Your task to perform on an android device: Show me productivity apps on the Play Store Image 0: 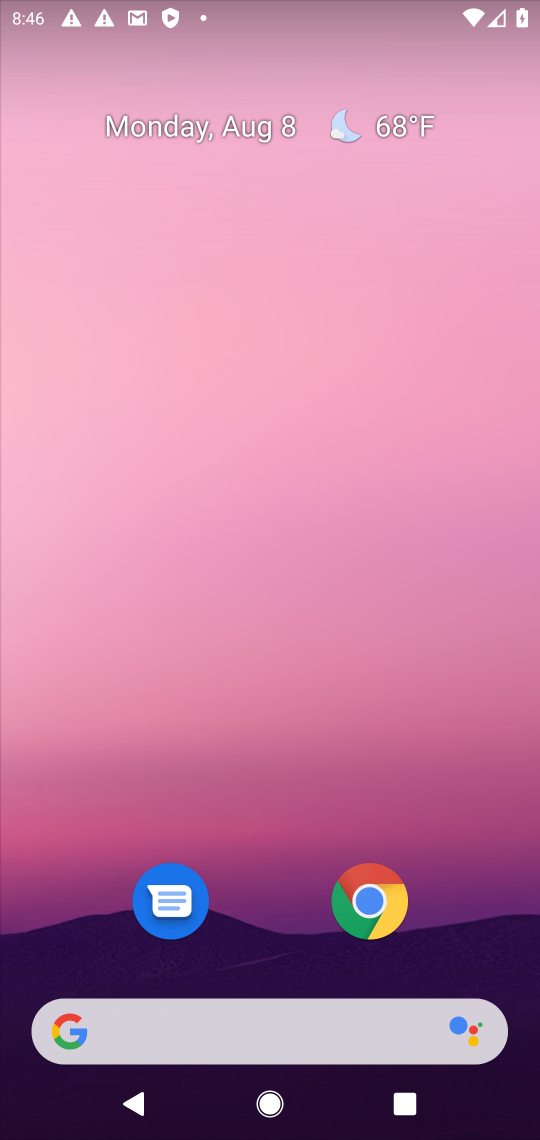
Step 0: press back button
Your task to perform on an android device: Show me productivity apps on the Play Store Image 1: 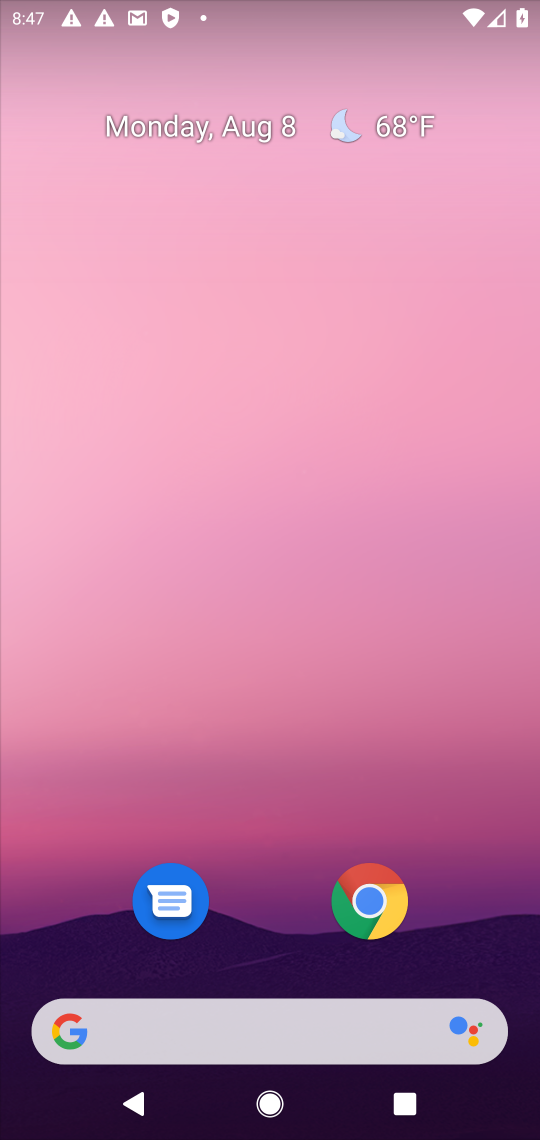
Step 1: drag from (275, 38) to (251, 125)
Your task to perform on an android device: Show me productivity apps on the Play Store Image 2: 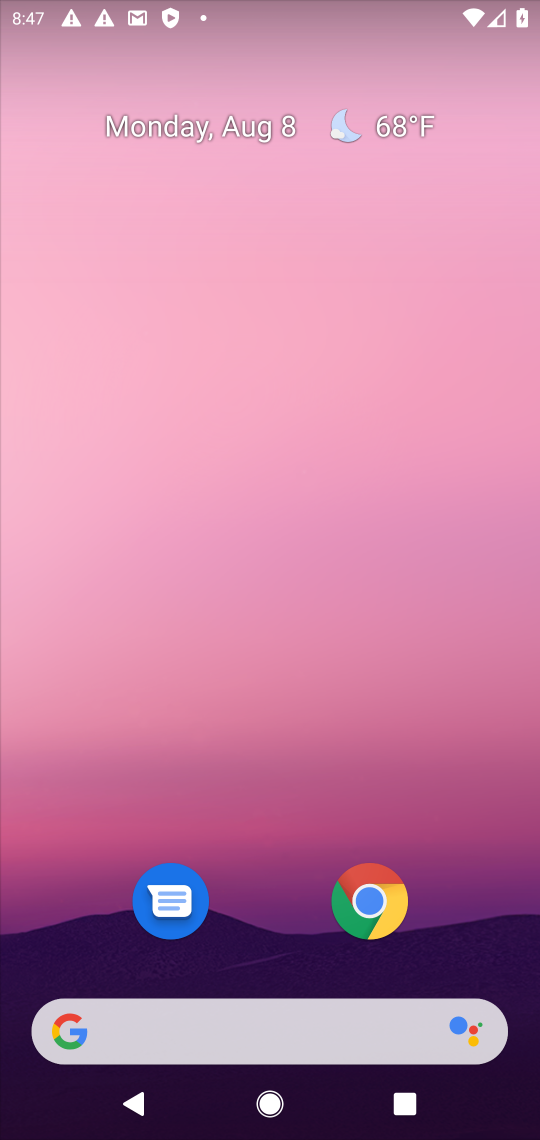
Step 2: click (259, 270)
Your task to perform on an android device: Show me productivity apps on the Play Store Image 3: 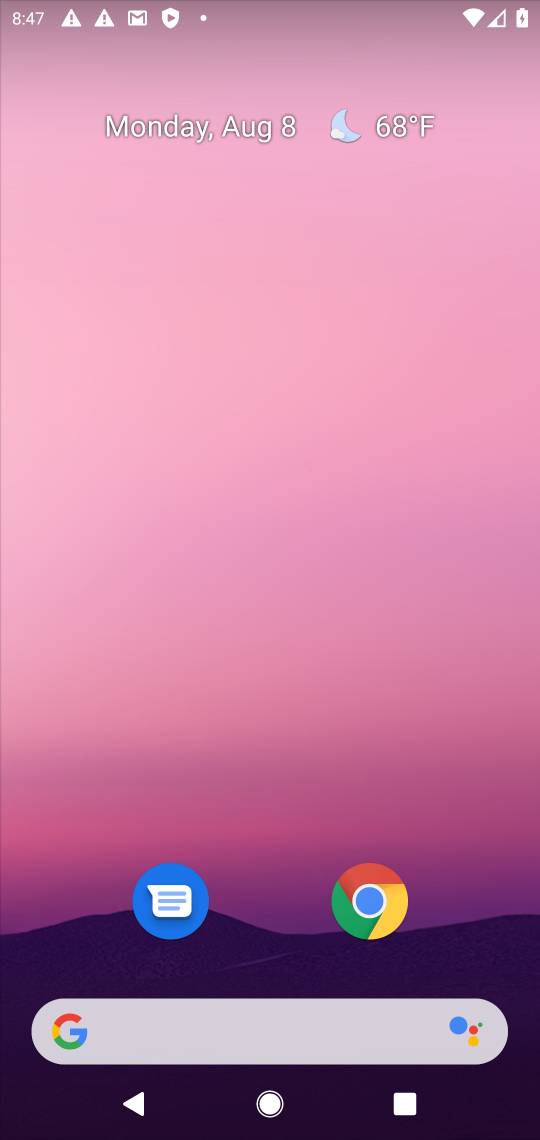
Step 3: click (278, 291)
Your task to perform on an android device: Show me productivity apps on the Play Store Image 4: 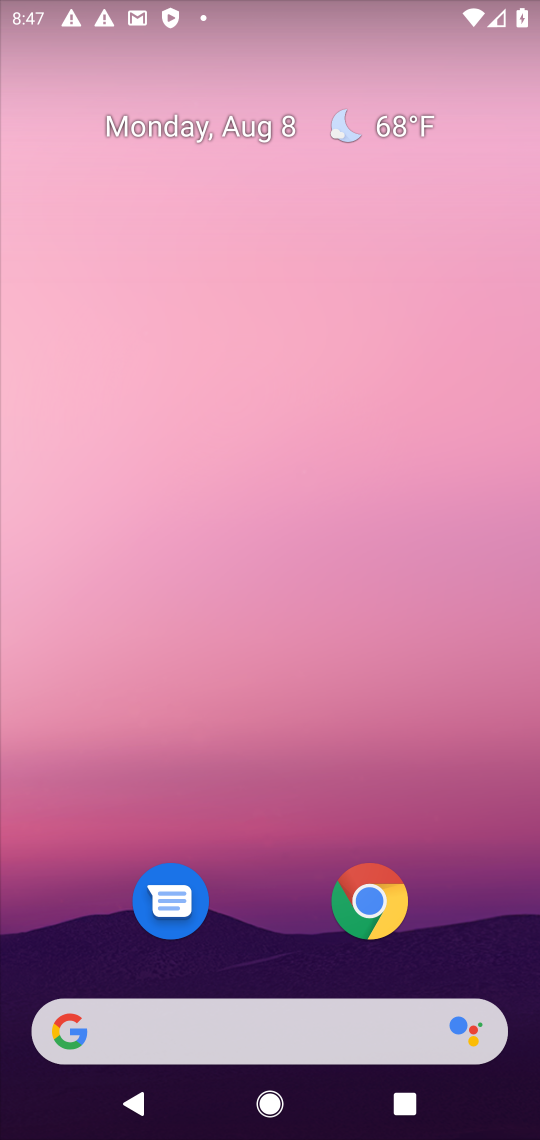
Step 4: drag from (237, 849) to (294, 300)
Your task to perform on an android device: Show me productivity apps on the Play Store Image 5: 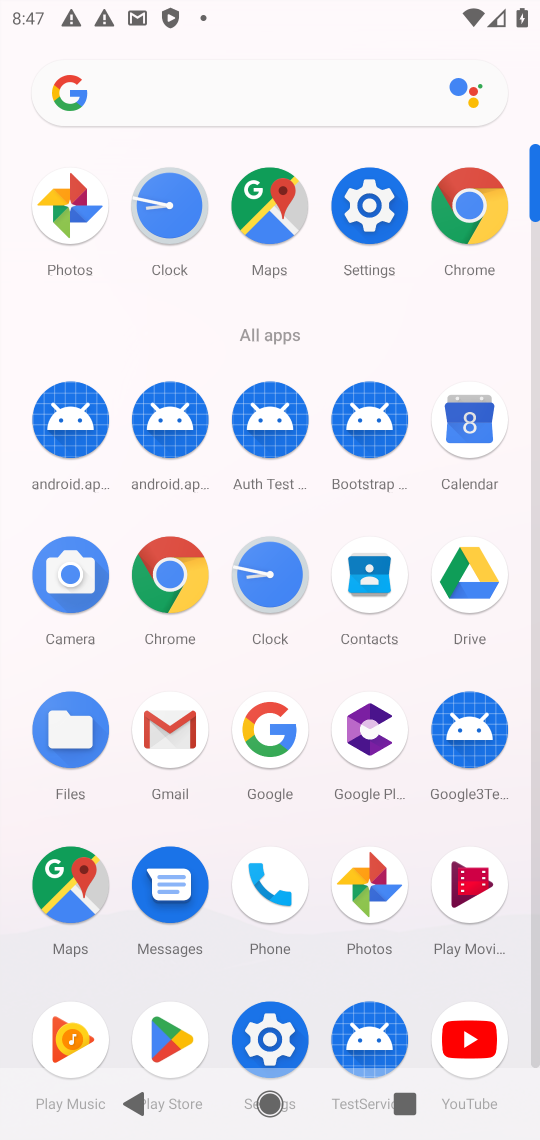
Step 5: click (163, 1037)
Your task to perform on an android device: Show me productivity apps on the Play Store Image 6: 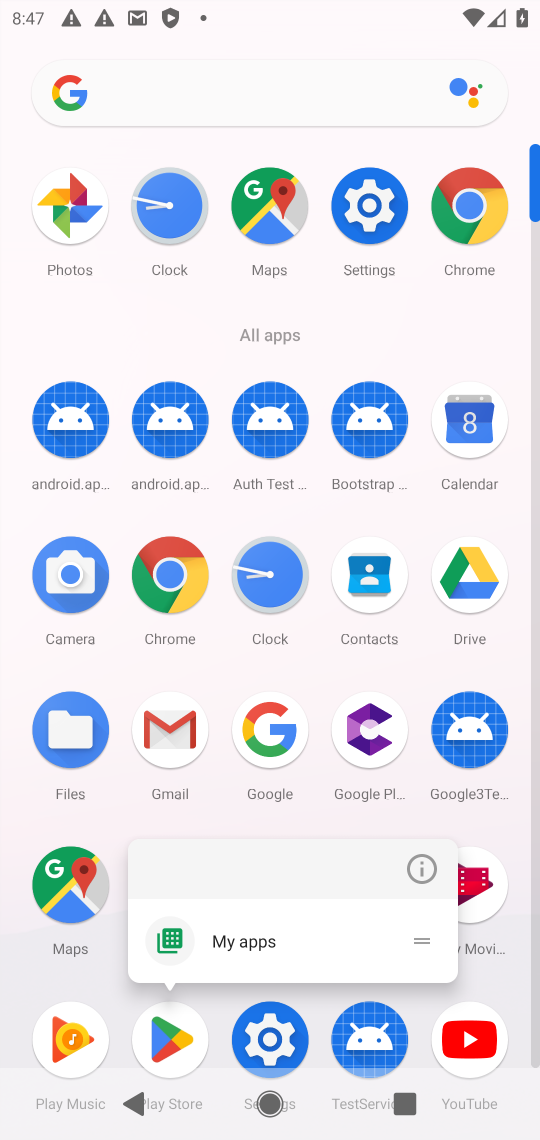
Step 6: click (169, 1041)
Your task to perform on an android device: Show me productivity apps on the Play Store Image 7: 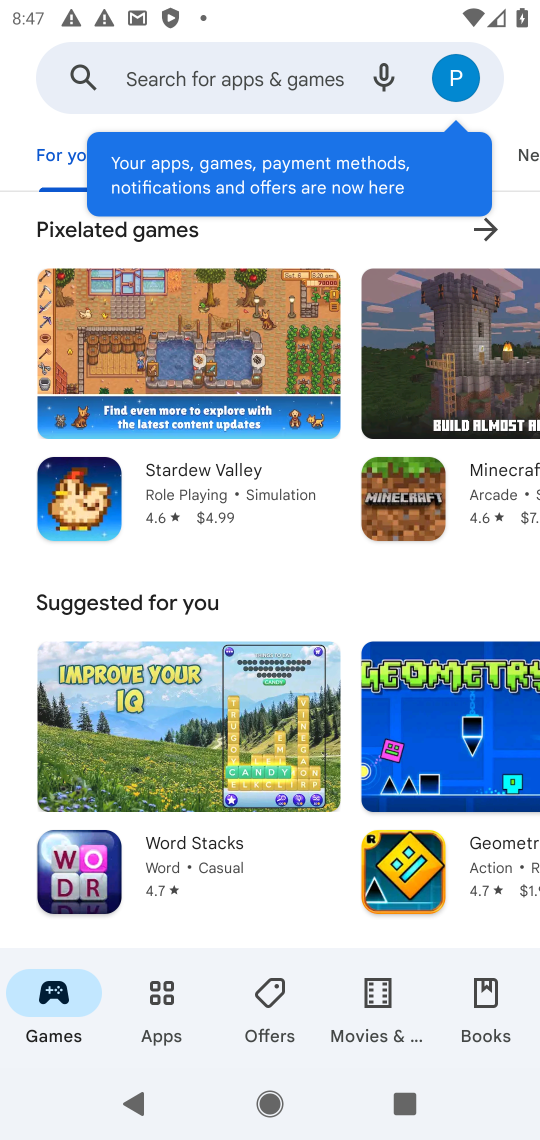
Step 7: click (457, 77)
Your task to perform on an android device: Show me productivity apps on the Play Store Image 8: 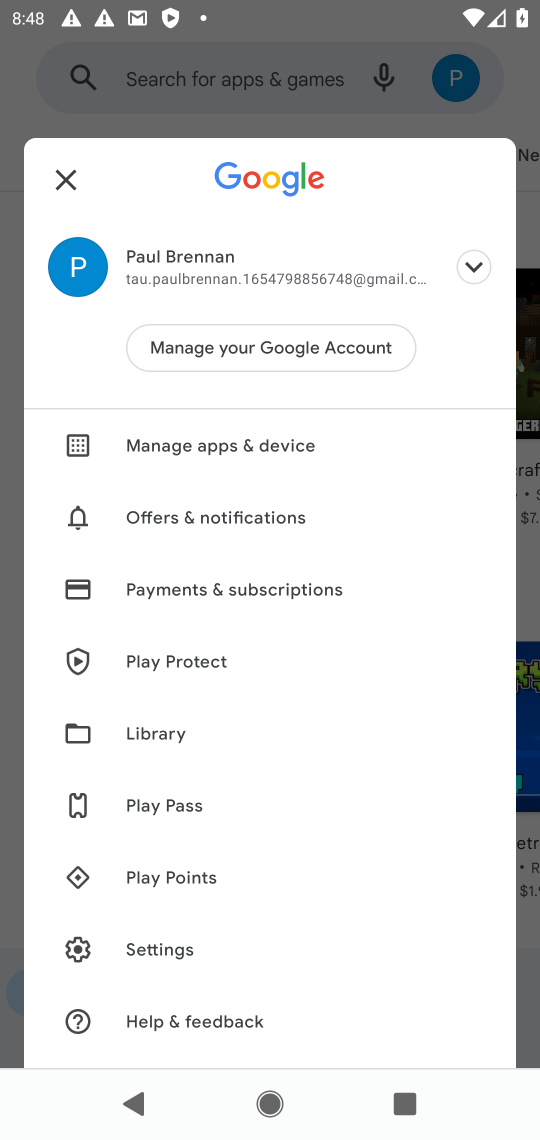
Step 8: press back button
Your task to perform on an android device: Show me productivity apps on the Play Store Image 9: 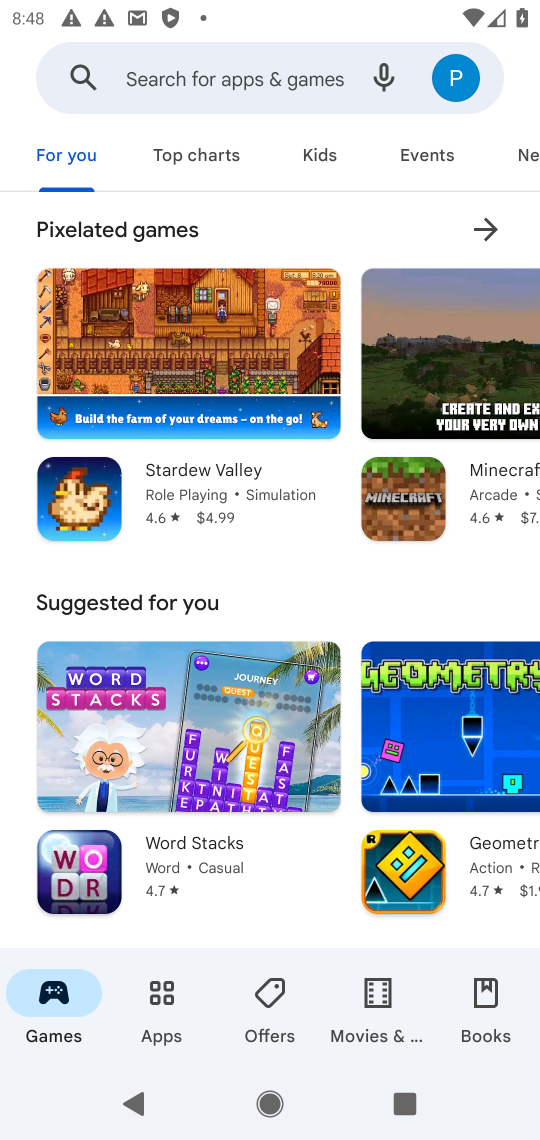
Step 9: click (167, 1016)
Your task to perform on an android device: Show me productivity apps on the Play Store Image 10: 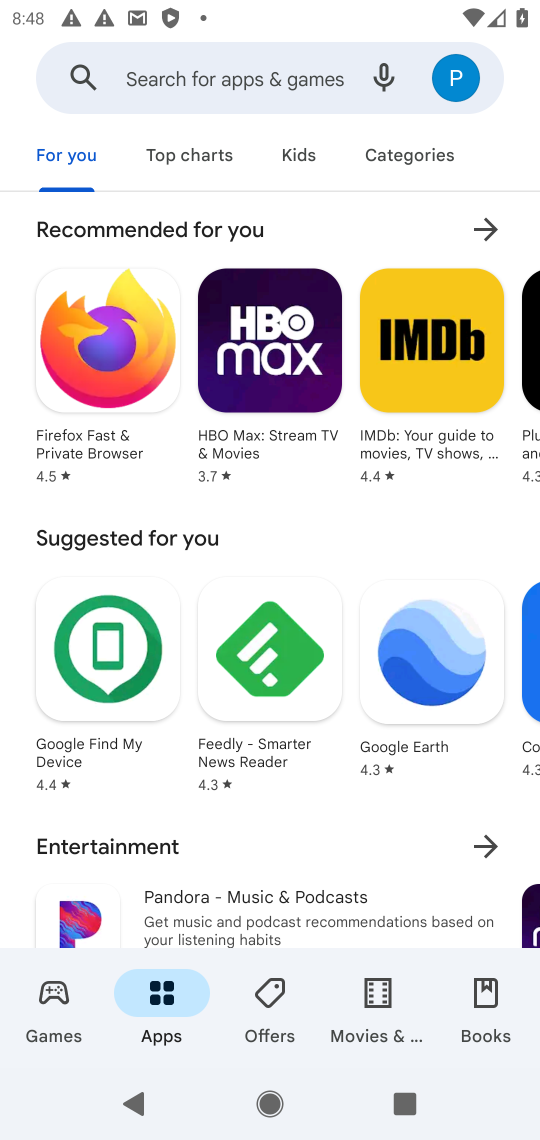
Step 10: click (397, 156)
Your task to perform on an android device: Show me productivity apps on the Play Store Image 11: 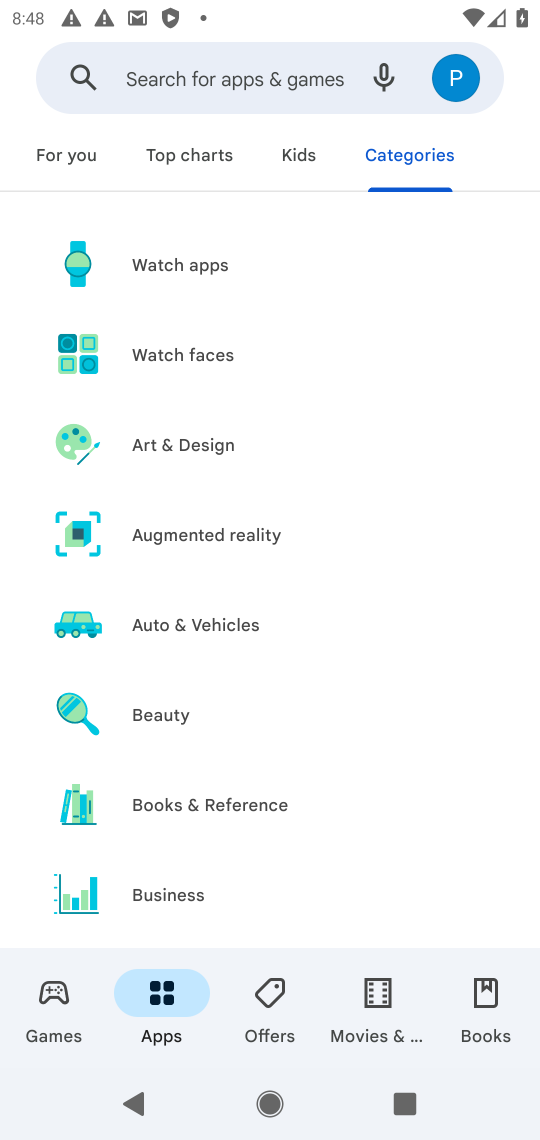
Step 11: click (241, 195)
Your task to perform on an android device: Show me productivity apps on the Play Store Image 12: 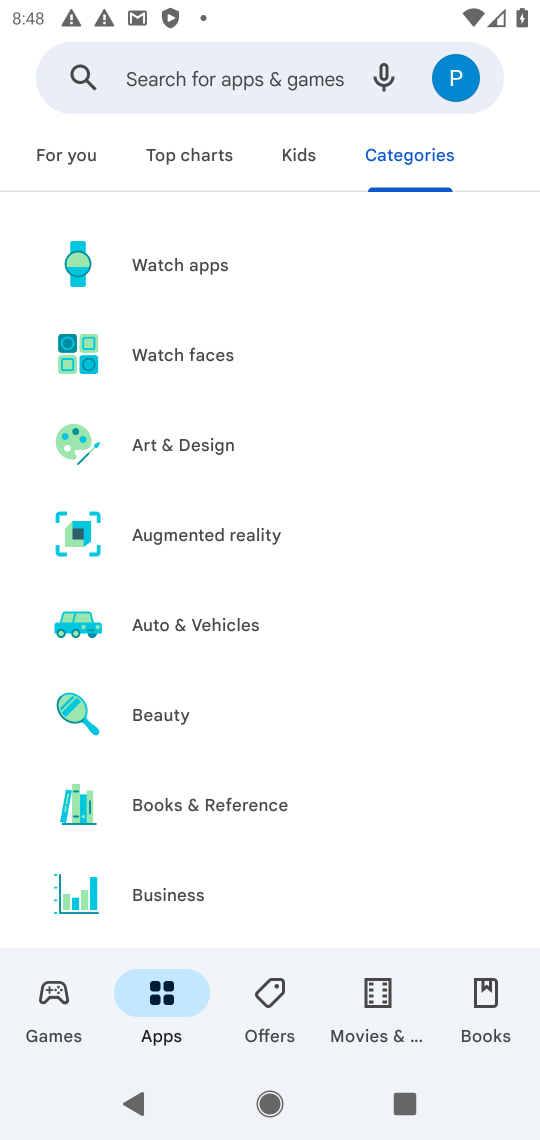
Step 12: drag from (199, 767) to (199, 380)
Your task to perform on an android device: Show me productivity apps on the Play Store Image 13: 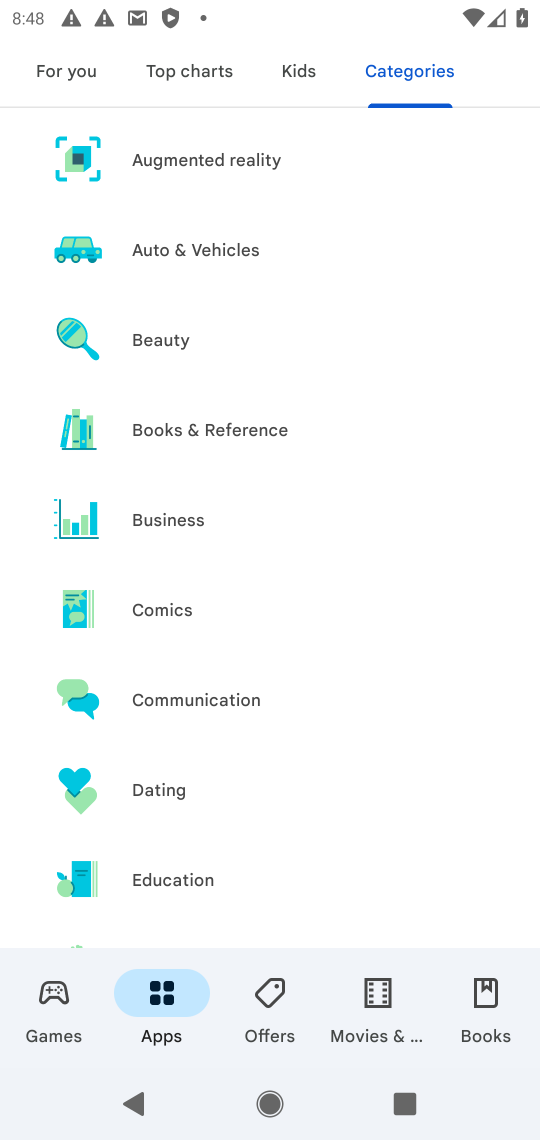
Step 13: drag from (218, 781) to (229, 403)
Your task to perform on an android device: Show me productivity apps on the Play Store Image 14: 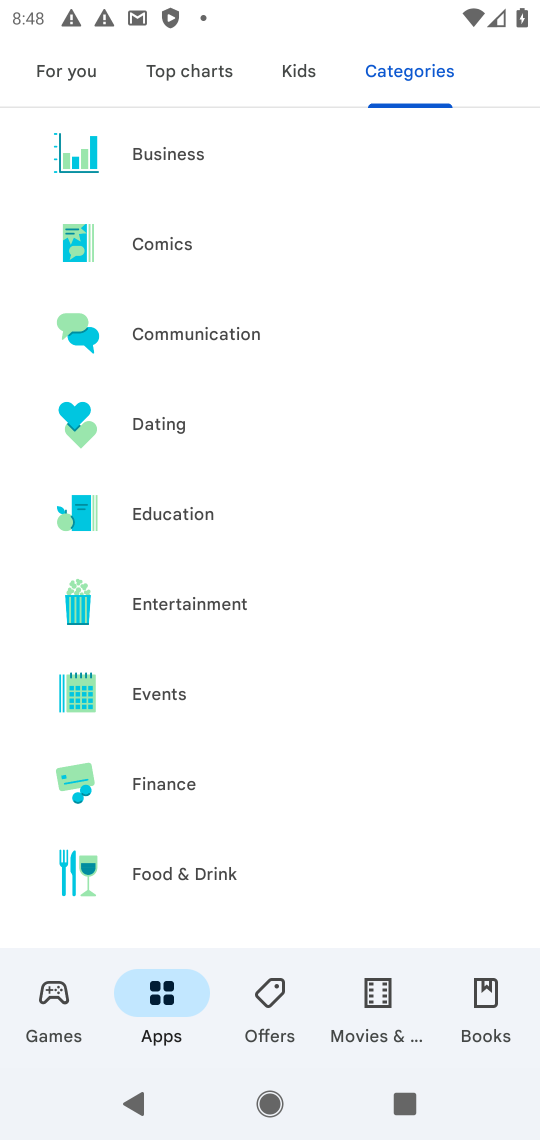
Step 14: click (222, 492)
Your task to perform on an android device: Show me productivity apps on the Play Store Image 15: 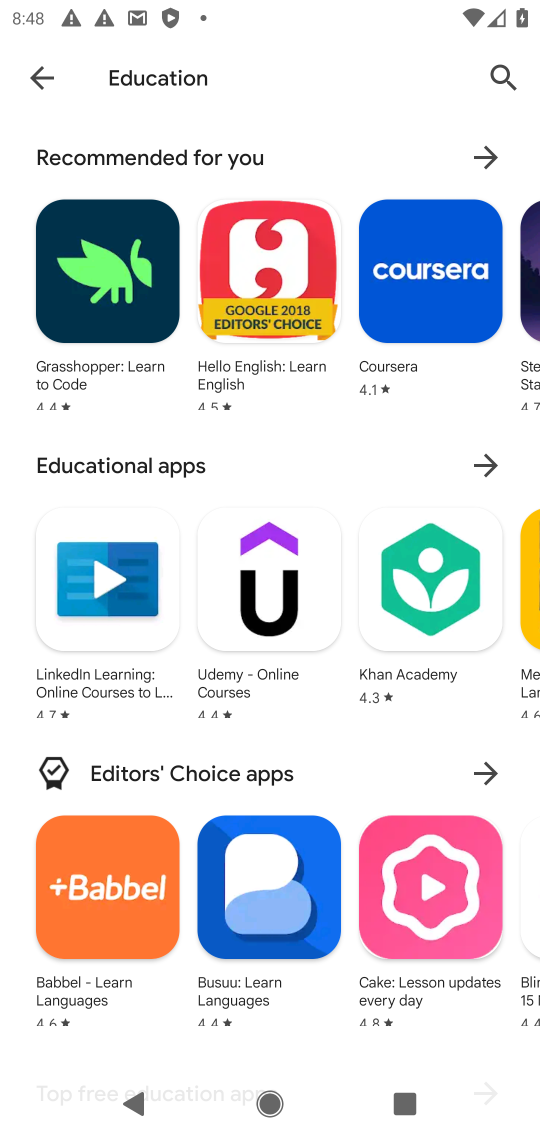
Step 15: click (35, 77)
Your task to perform on an android device: Show me productivity apps on the Play Store Image 16: 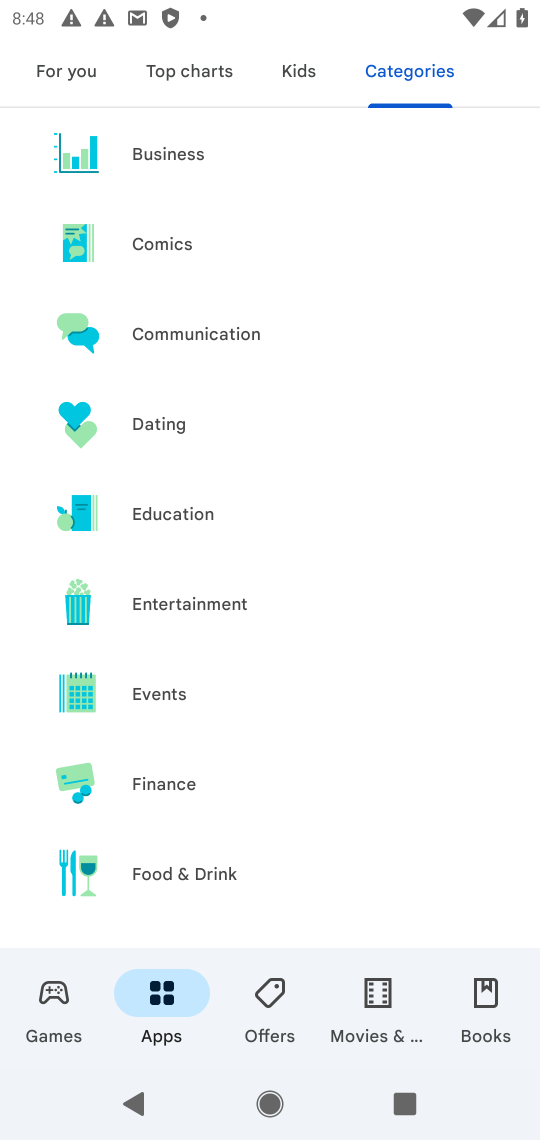
Step 16: drag from (170, 754) to (172, 274)
Your task to perform on an android device: Show me productivity apps on the Play Store Image 17: 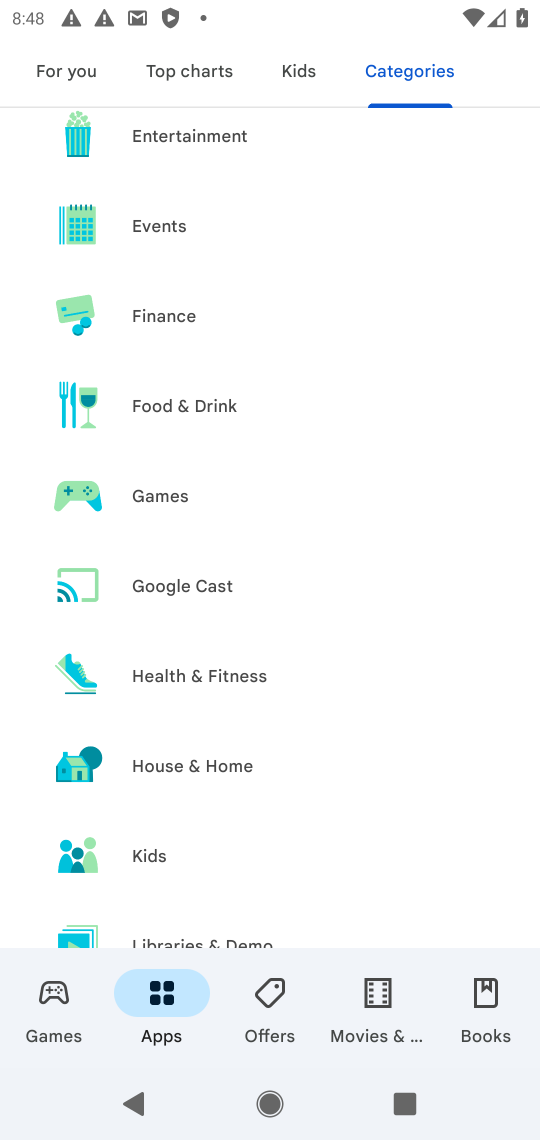
Step 17: drag from (188, 740) to (211, 442)
Your task to perform on an android device: Show me productivity apps on the Play Store Image 18: 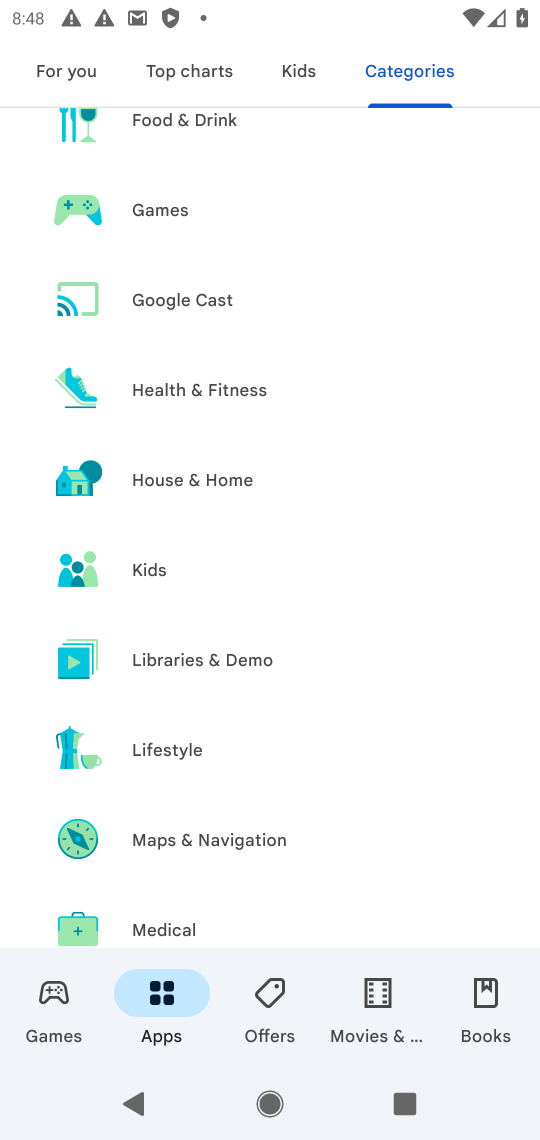
Step 18: click (214, 467)
Your task to perform on an android device: Show me productivity apps on the Play Store Image 19: 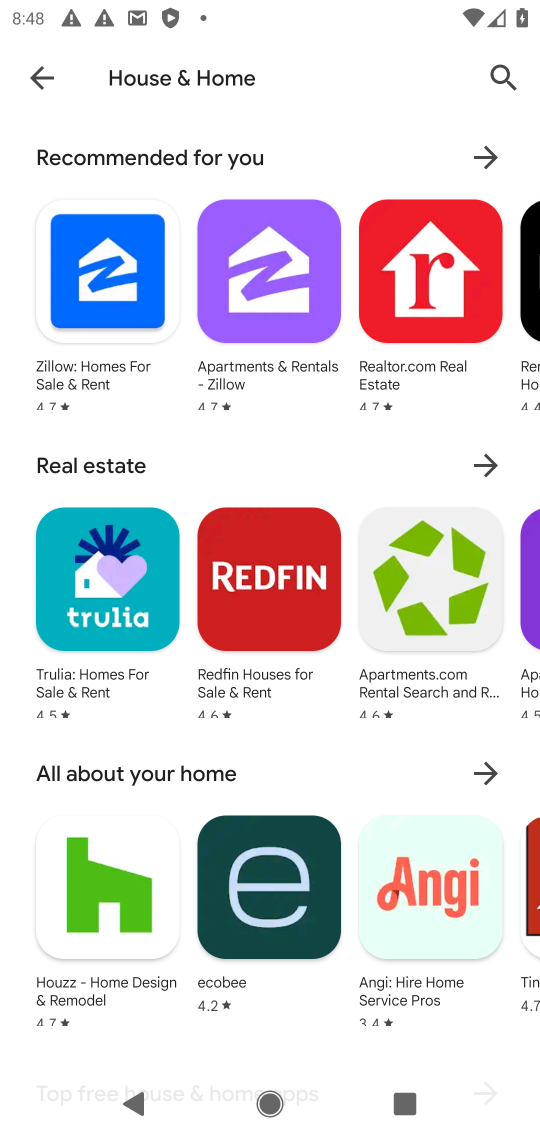
Step 19: click (37, 73)
Your task to perform on an android device: Show me productivity apps on the Play Store Image 20: 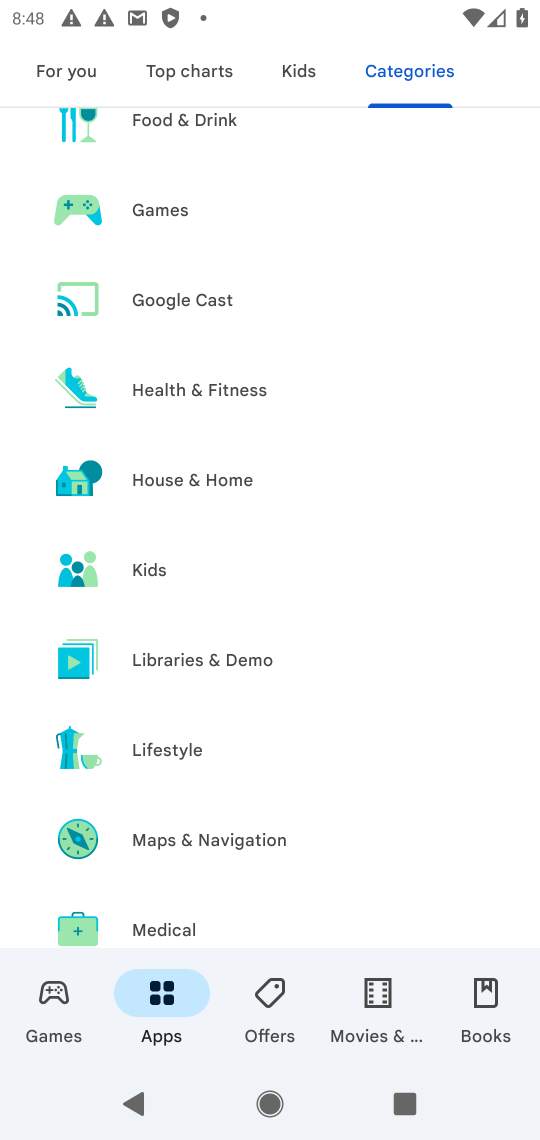
Step 20: drag from (200, 868) to (219, 420)
Your task to perform on an android device: Show me productivity apps on the Play Store Image 21: 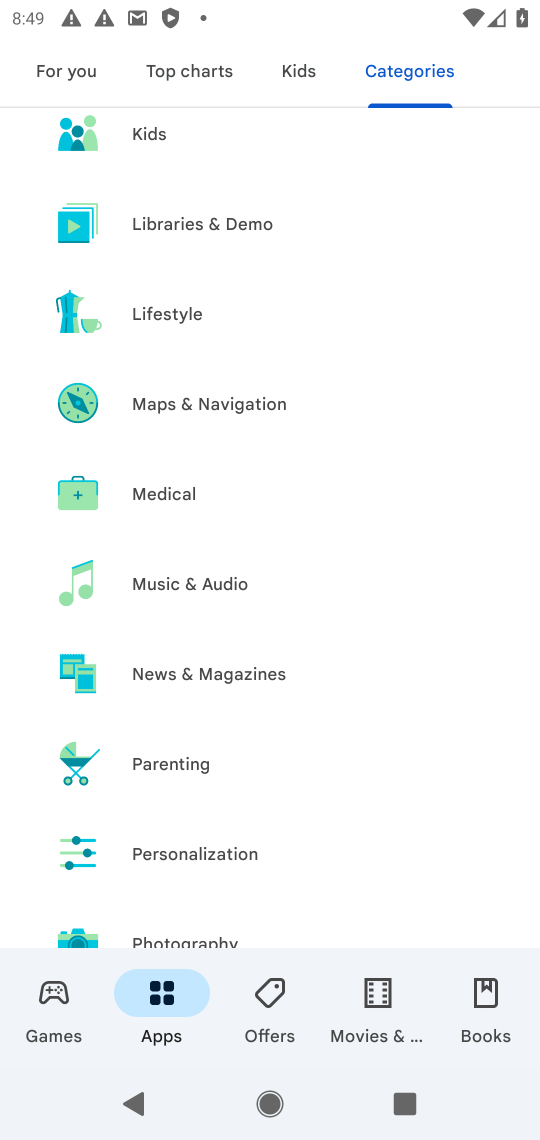
Step 21: drag from (207, 817) to (207, 551)
Your task to perform on an android device: Show me productivity apps on the Play Store Image 22: 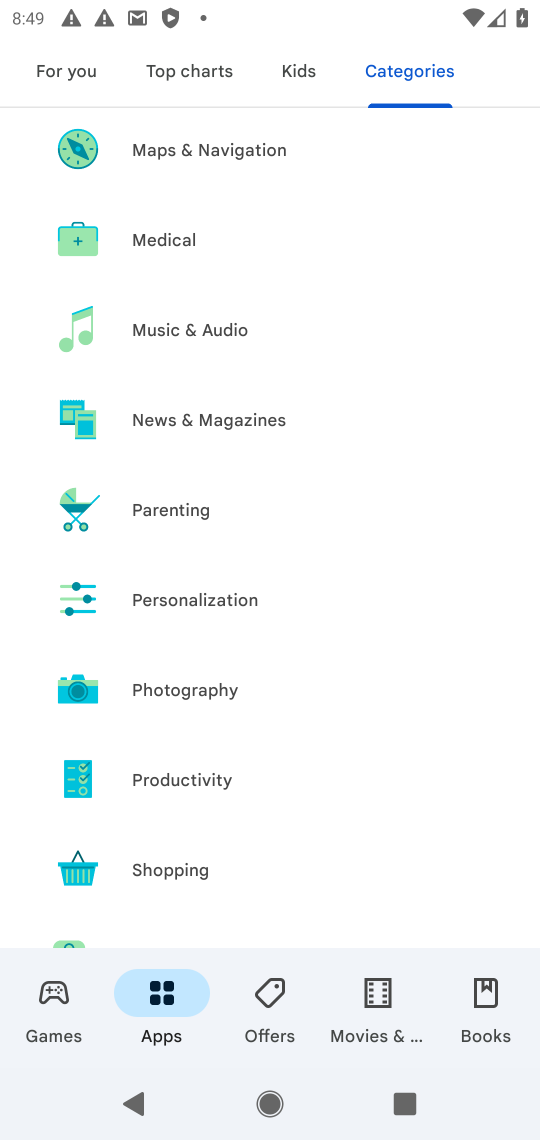
Step 22: click (175, 772)
Your task to perform on an android device: Show me productivity apps on the Play Store Image 23: 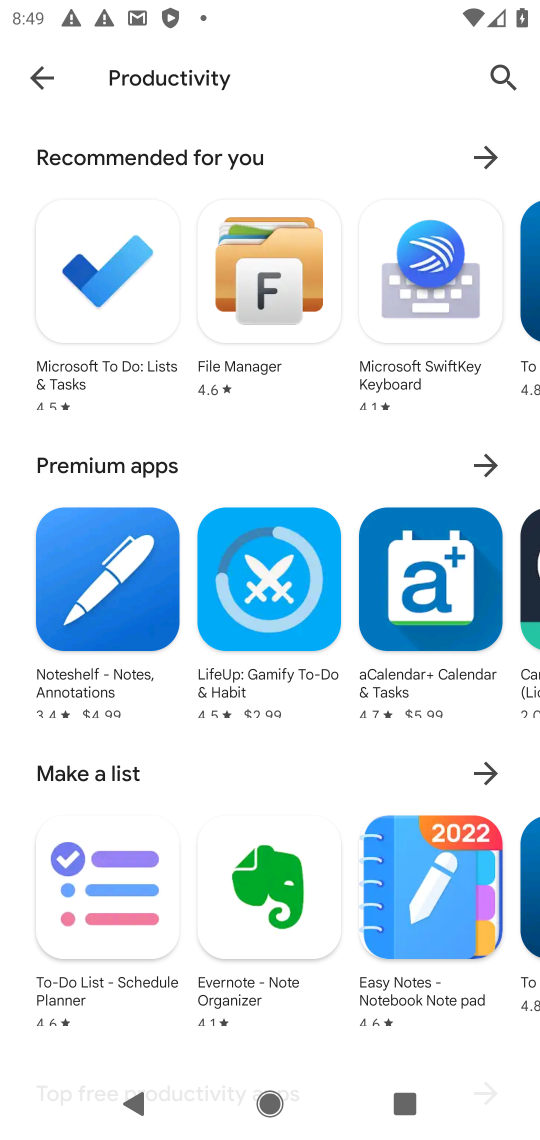
Step 23: task complete